Your task to perform on an android device: Open Amazon Image 0: 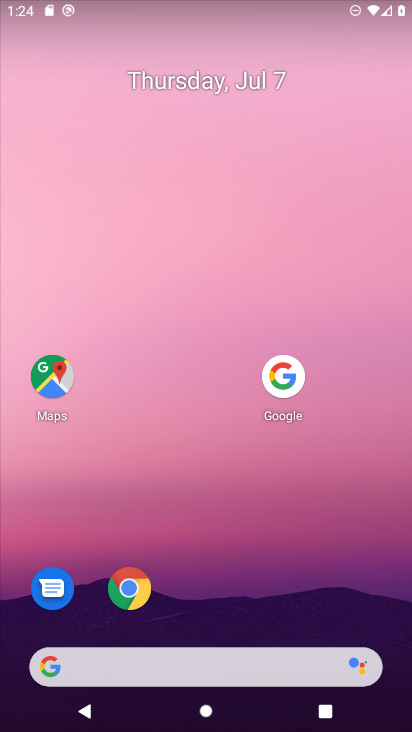
Step 0: click (126, 591)
Your task to perform on an android device: Open Amazon Image 1: 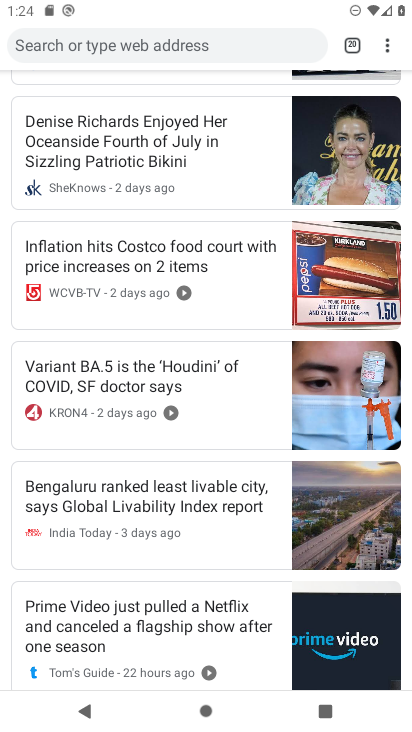
Step 1: drag from (389, 47) to (306, 94)
Your task to perform on an android device: Open Amazon Image 2: 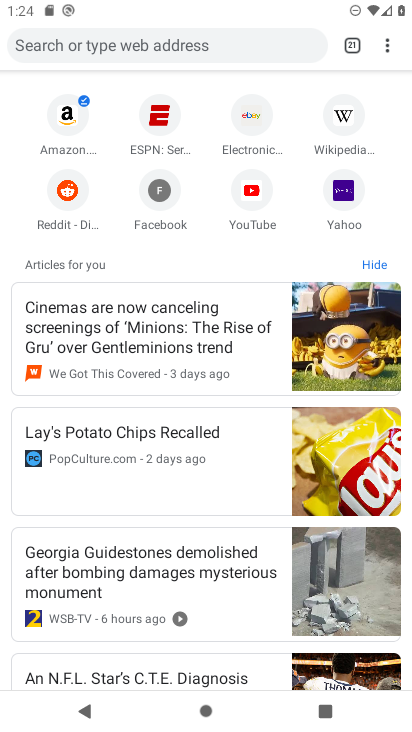
Step 2: click (66, 108)
Your task to perform on an android device: Open Amazon Image 3: 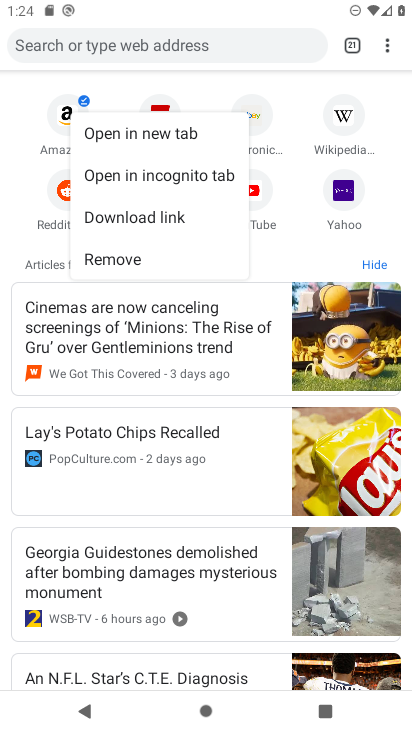
Step 3: click (63, 110)
Your task to perform on an android device: Open Amazon Image 4: 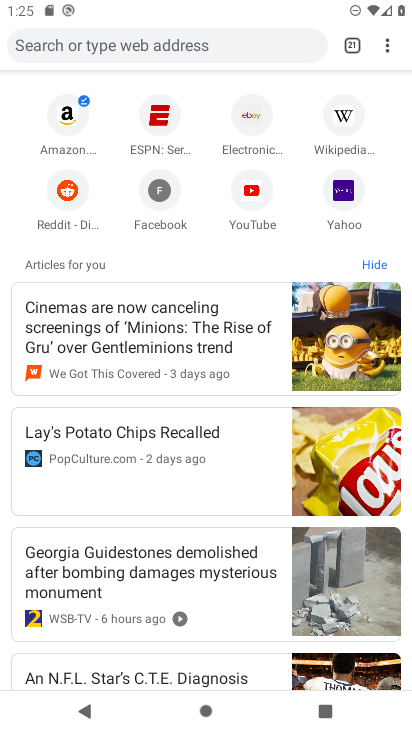
Step 4: click (74, 117)
Your task to perform on an android device: Open Amazon Image 5: 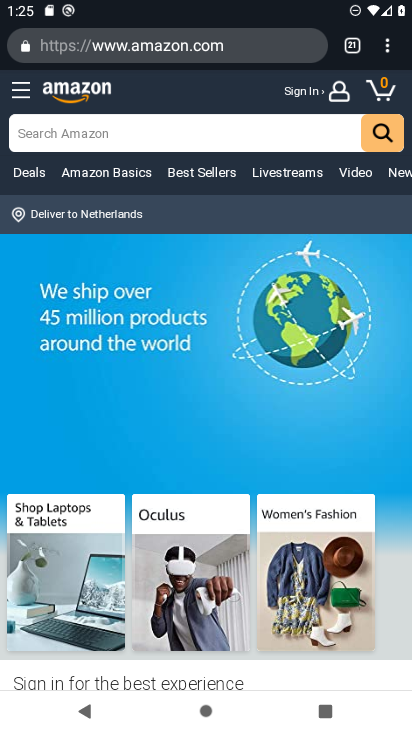
Step 5: task complete